Your task to perform on an android device: toggle show notifications on the lock screen Image 0: 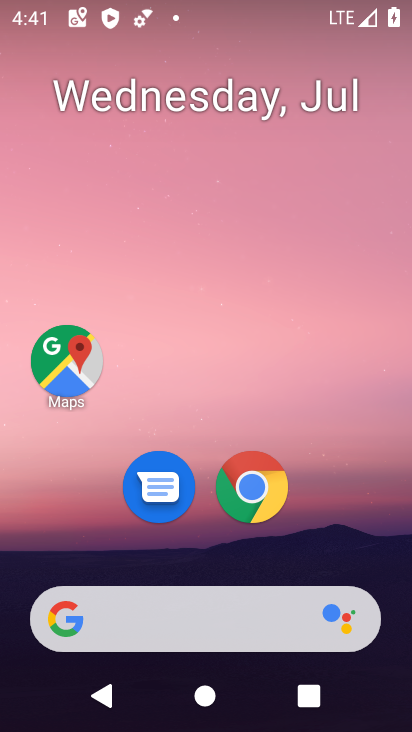
Step 0: drag from (167, 565) to (276, 4)
Your task to perform on an android device: toggle show notifications on the lock screen Image 1: 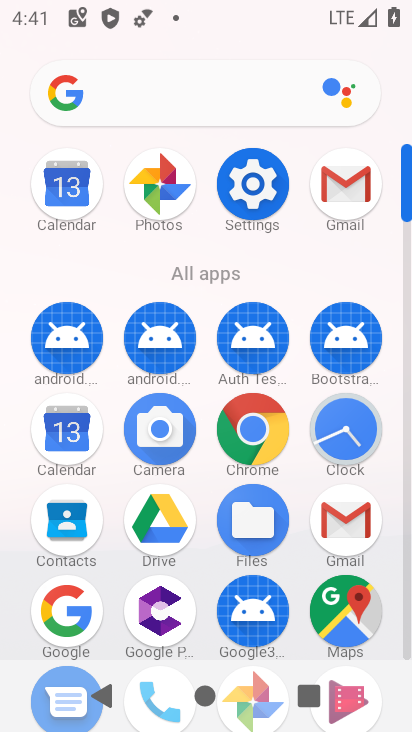
Step 1: click (272, 171)
Your task to perform on an android device: toggle show notifications on the lock screen Image 2: 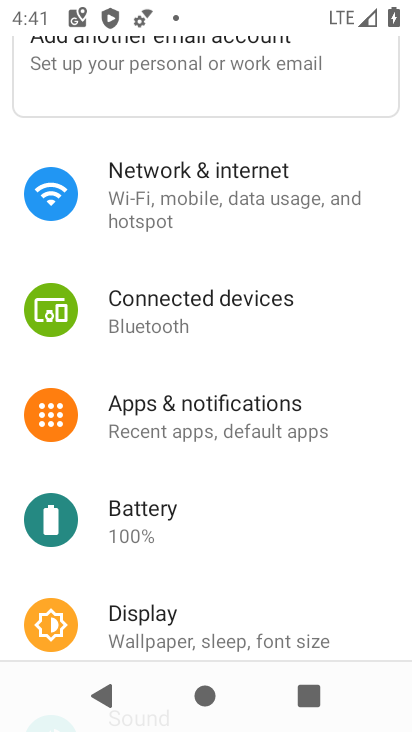
Step 2: click (184, 418)
Your task to perform on an android device: toggle show notifications on the lock screen Image 3: 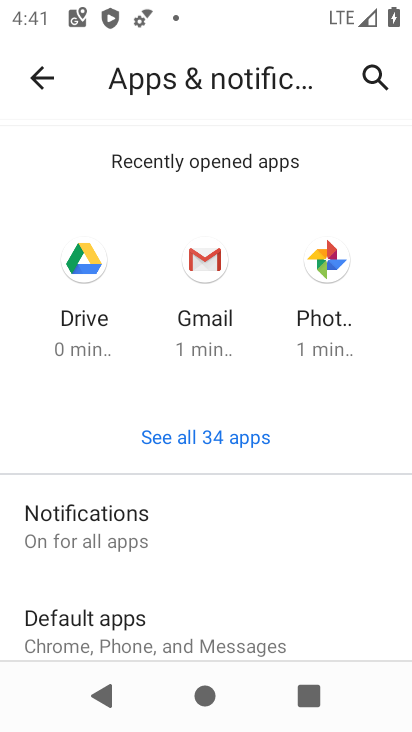
Step 3: click (109, 522)
Your task to perform on an android device: toggle show notifications on the lock screen Image 4: 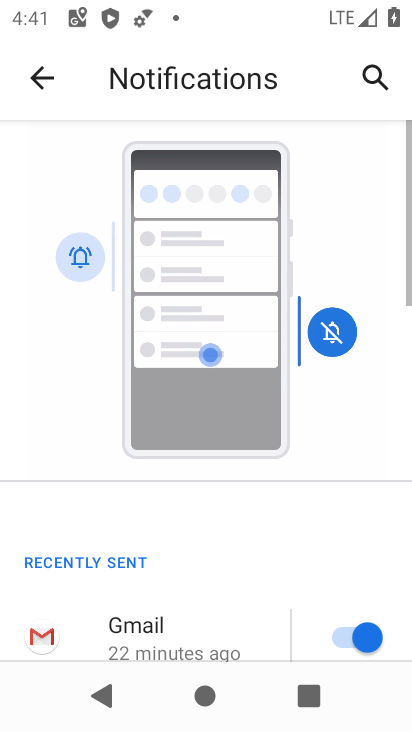
Step 4: drag from (199, 635) to (296, 60)
Your task to perform on an android device: toggle show notifications on the lock screen Image 5: 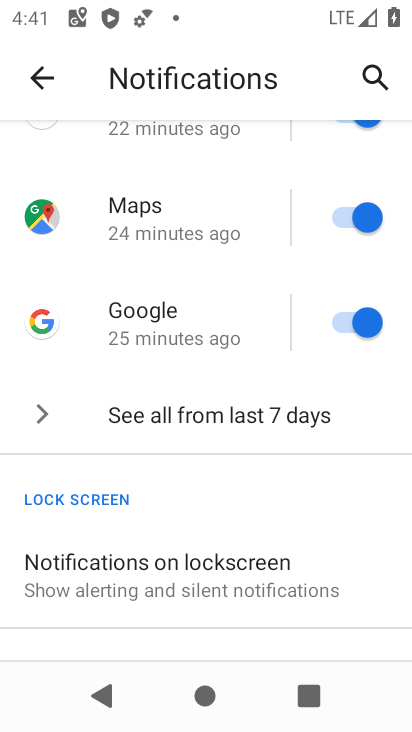
Step 5: click (168, 565)
Your task to perform on an android device: toggle show notifications on the lock screen Image 6: 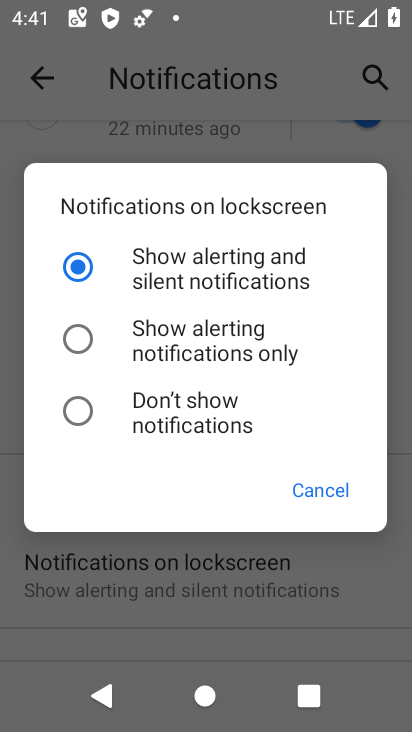
Step 6: task complete